Your task to perform on an android device: Search for Italian restaurants on Maps Image 0: 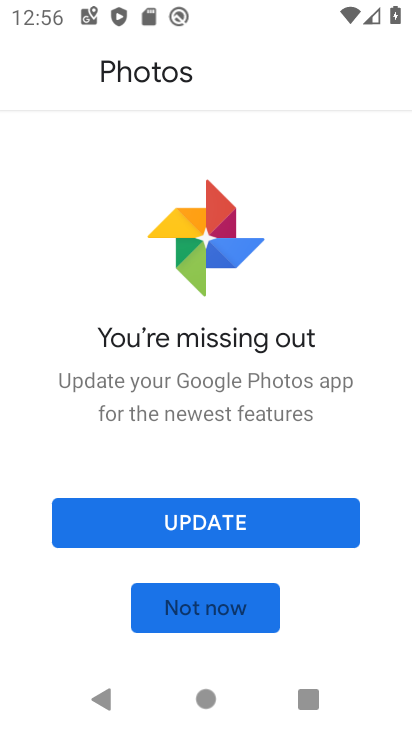
Step 0: press home button
Your task to perform on an android device: Search for Italian restaurants on Maps Image 1: 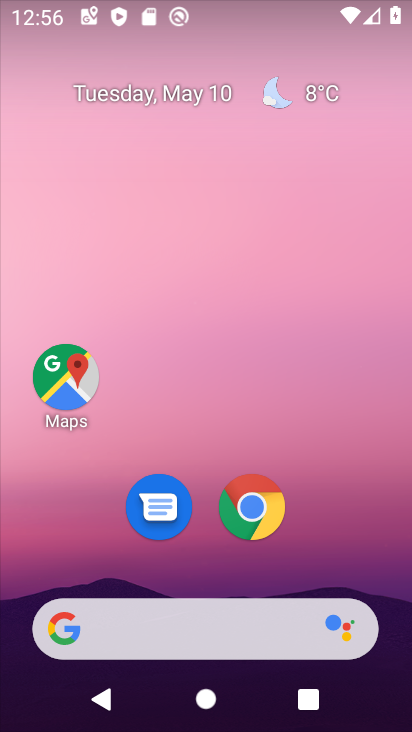
Step 1: drag from (223, 723) to (223, 352)
Your task to perform on an android device: Search for Italian restaurants on Maps Image 2: 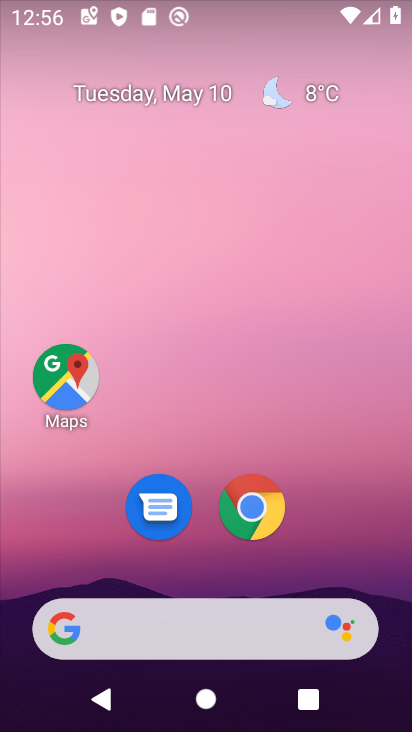
Step 2: drag from (225, 724) to (229, 234)
Your task to perform on an android device: Search for Italian restaurants on Maps Image 3: 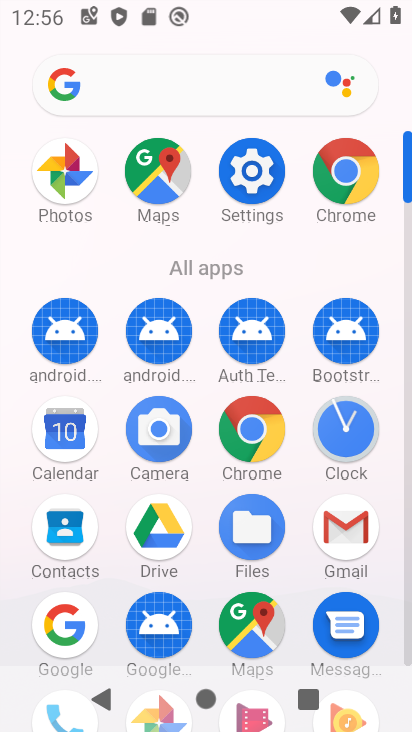
Step 3: click (258, 629)
Your task to perform on an android device: Search for Italian restaurants on Maps Image 4: 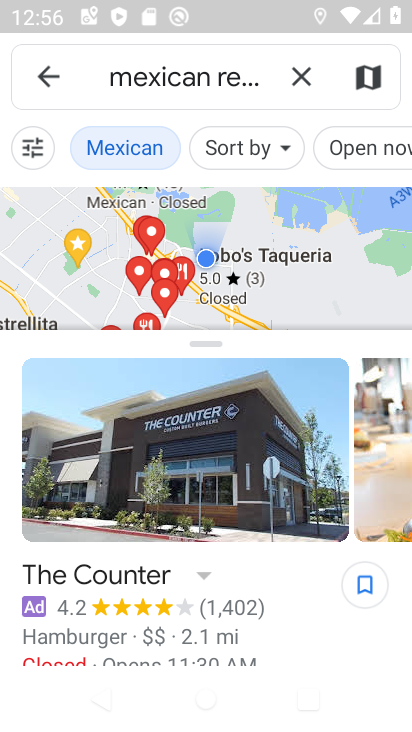
Step 4: click (302, 74)
Your task to perform on an android device: Search for Italian restaurants on Maps Image 5: 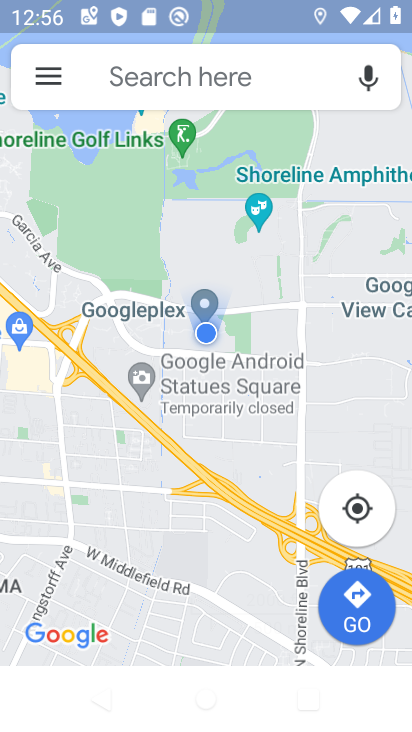
Step 5: click (214, 71)
Your task to perform on an android device: Search for Italian restaurants on Maps Image 6: 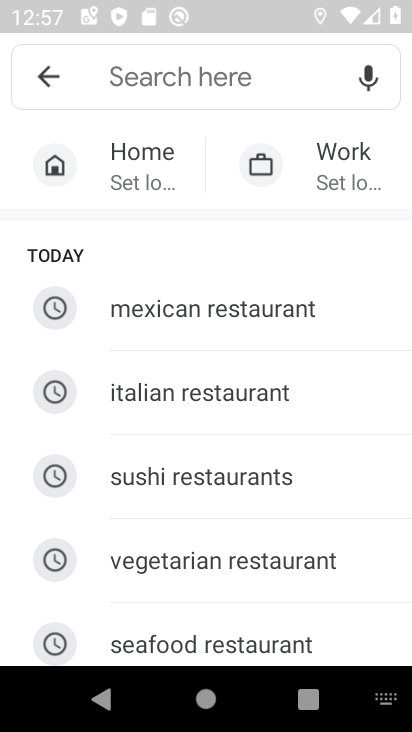
Step 6: type "italian restaurants"
Your task to perform on an android device: Search for Italian restaurants on Maps Image 7: 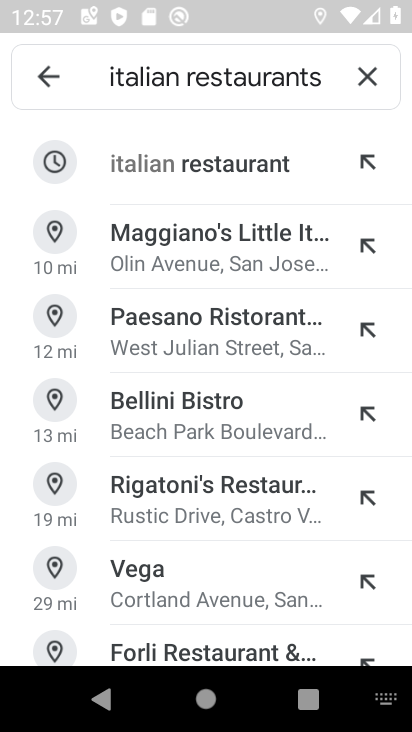
Step 7: click (207, 158)
Your task to perform on an android device: Search for Italian restaurants on Maps Image 8: 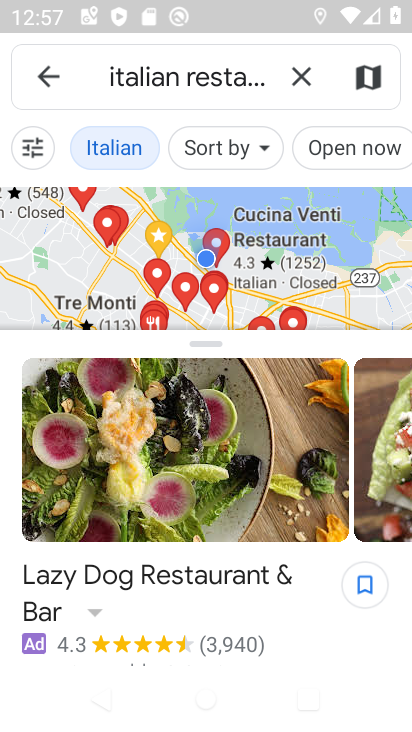
Step 8: task complete